Your task to perform on an android device: What's on my calendar today? Image 0: 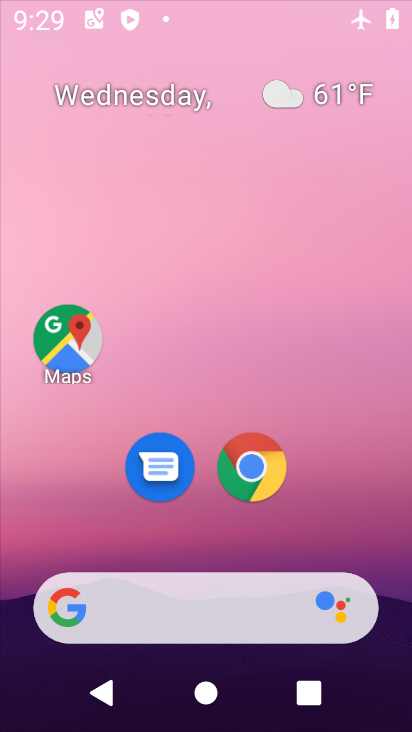
Step 0: click (251, 464)
Your task to perform on an android device: What's on my calendar today? Image 1: 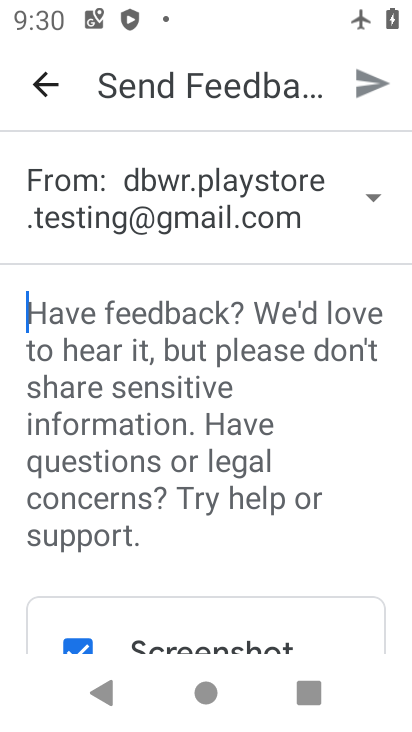
Step 1: press home button
Your task to perform on an android device: What's on my calendar today? Image 2: 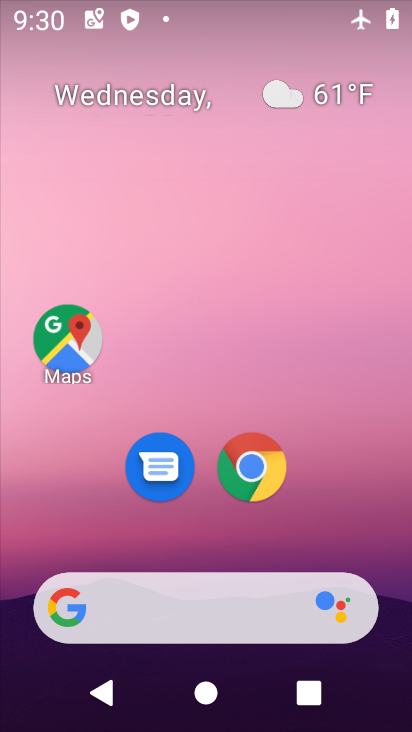
Step 2: drag from (215, 713) to (208, 115)
Your task to perform on an android device: What's on my calendar today? Image 3: 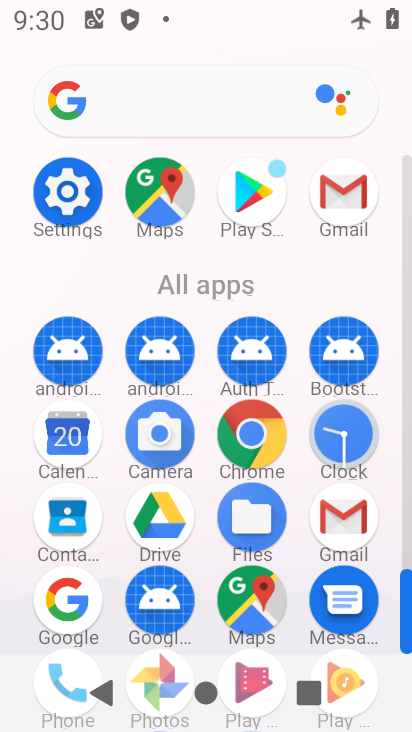
Step 3: click (60, 438)
Your task to perform on an android device: What's on my calendar today? Image 4: 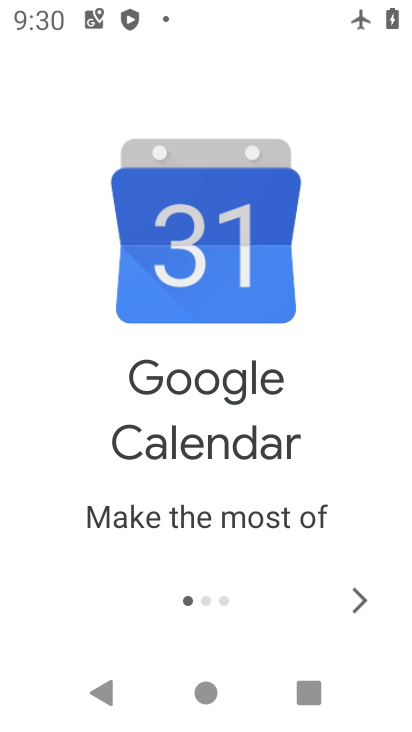
Step 4: click (358, 596)
Your task to perform on an android device: What's on my calendar today? Image 5: 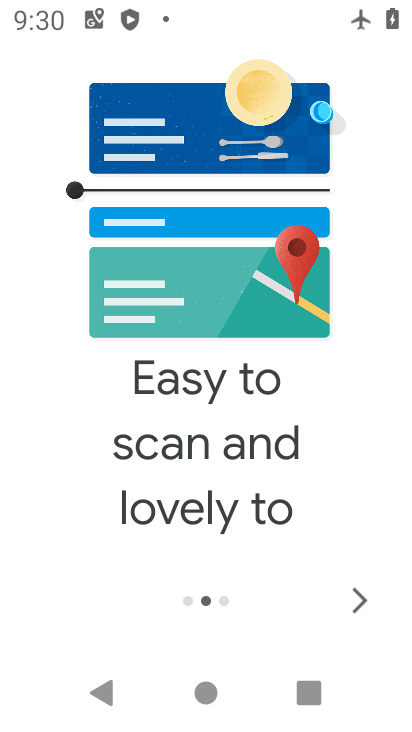
Step 5: click (358, 596)
Your task to perform on an android device: What's on my calendar today? Image 6: 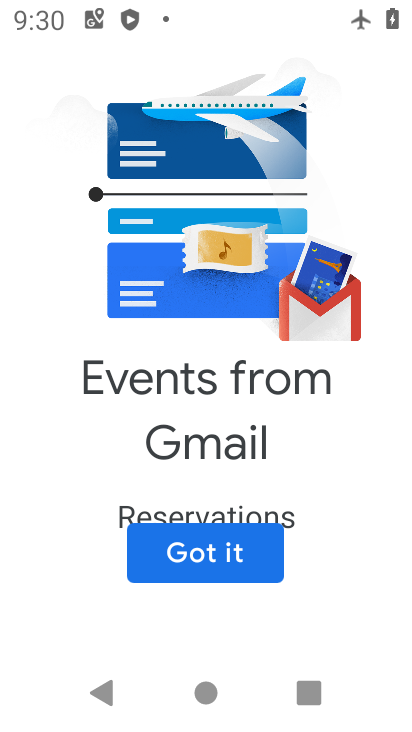
Step 6: click (203, 549)
Your task to perform on an android device: What's on my calendar today? Image 7: 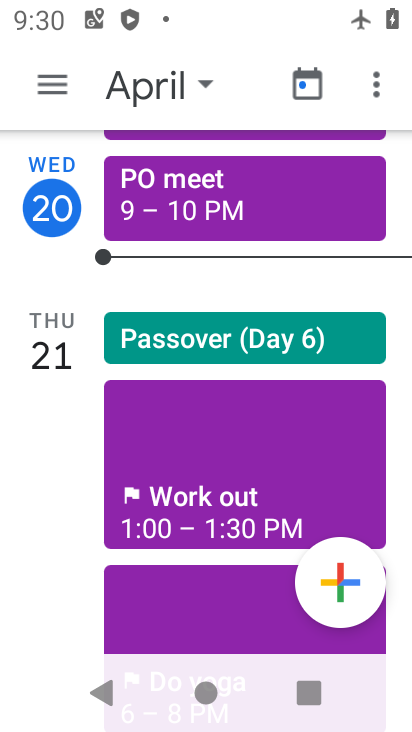
Step 7: click (146, 82)
Your task to perform on an android device: What's on my calendar today? Image 8: 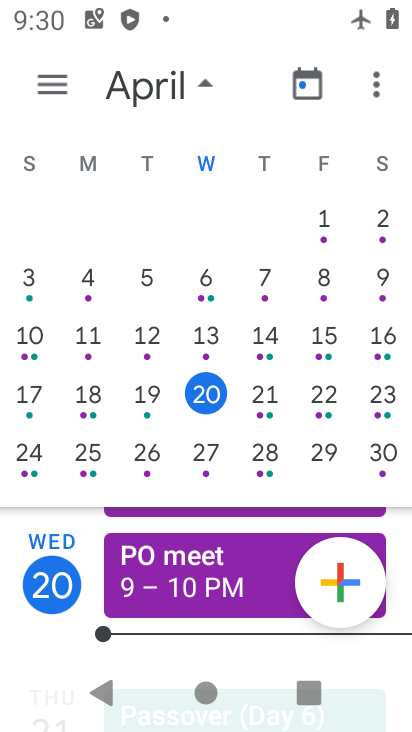
Step 8: click (206, 393)
Your task to perform on an android device: What's on my calendar today? Image 9: 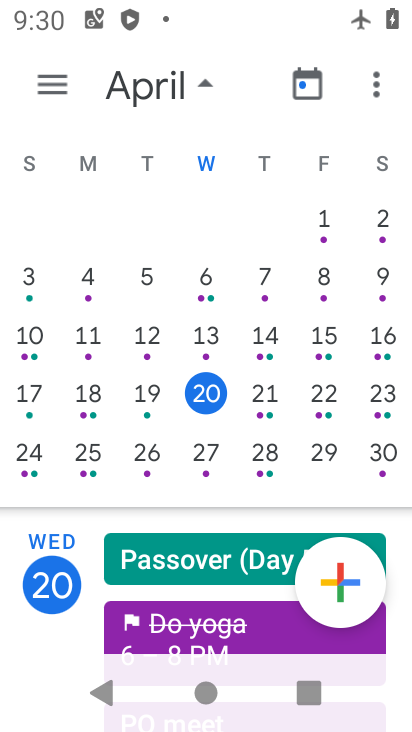
Step 9: click (206, 393)
Your task to perform on an android device: What's on my calendar today? Image 10: 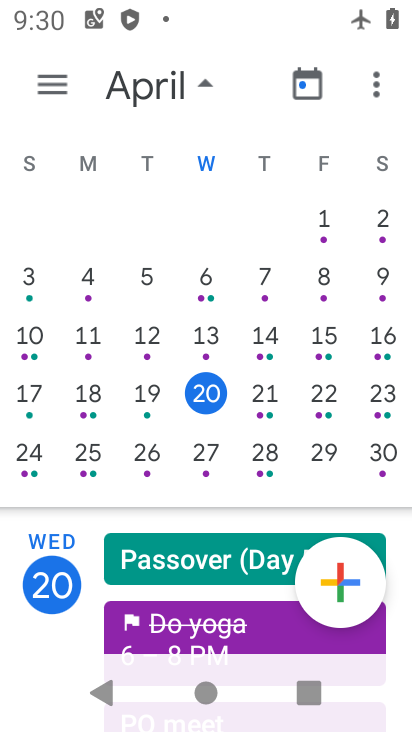
Step 10: task complete